Your task to perform on an android device: search for starred emails in the gmail app Image 0: 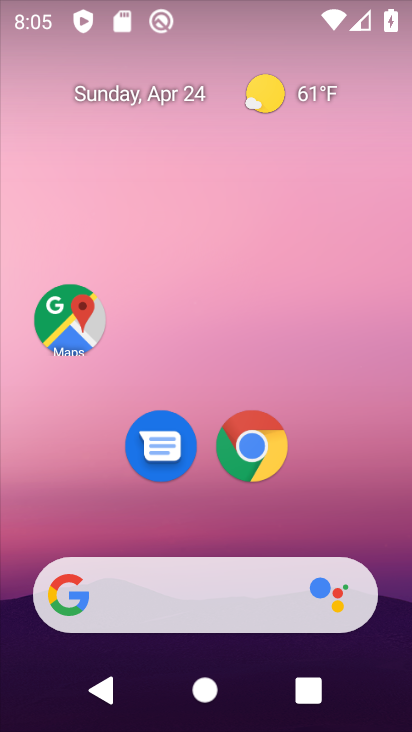
Step 0: drag from (167, 554) to (217, 54)
Your task to perform on an android device: search for starred emails in the gmail app Image 1: 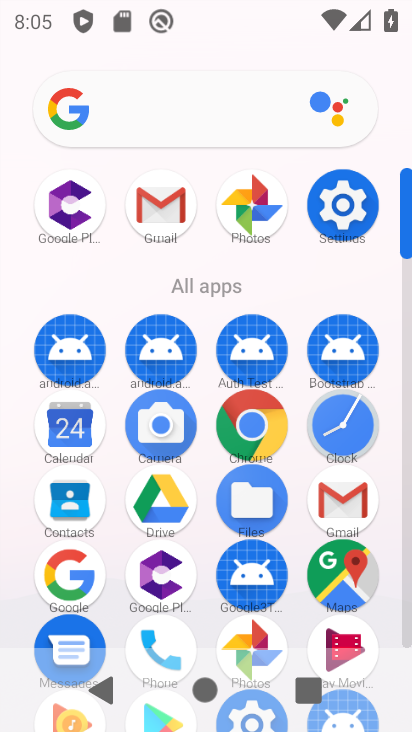
Step 1: click (346, 511)
Your task to perform on an android device: search for starred emails in the gmail app Image 2: 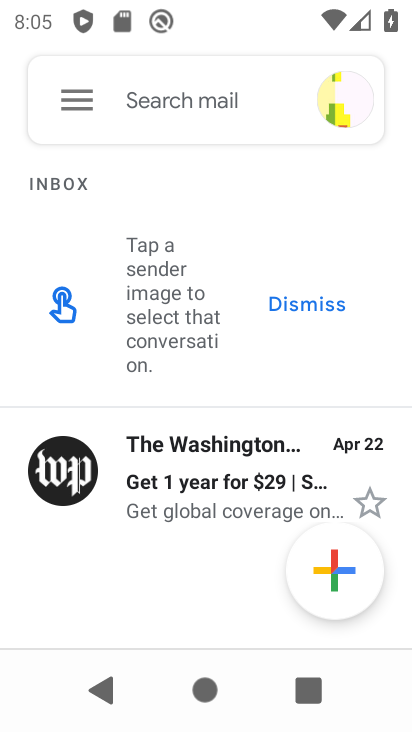
Step 2: click (82, 98)
Your task to perform on an android device: search for starred emails in the gmail app Image 3: 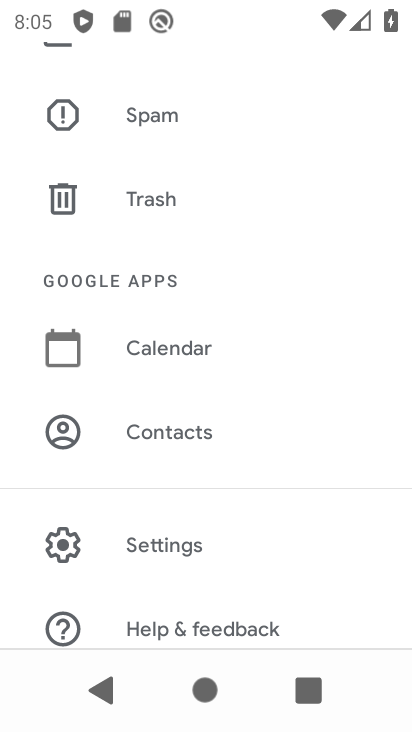
Step 3: drag from (114, 336) to (157, 713)
Your task to perform on an android device: search for starred emails in the gmail app Image 4: 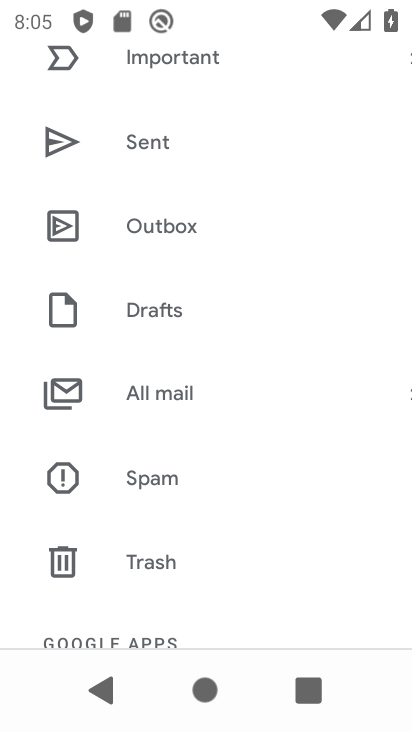
Step 4: drag from (147, 284) to (106, 705)
Your task to perform on an android device: search for starred emails in the gmail app Image 5: 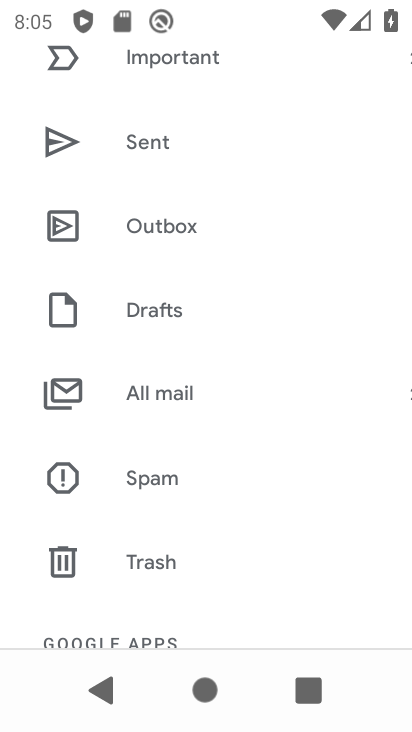
Step 5: drag from (193, 468) to (193, 571)
Your task to perform on an android device: search for starred emails in the gmail app Image 6: 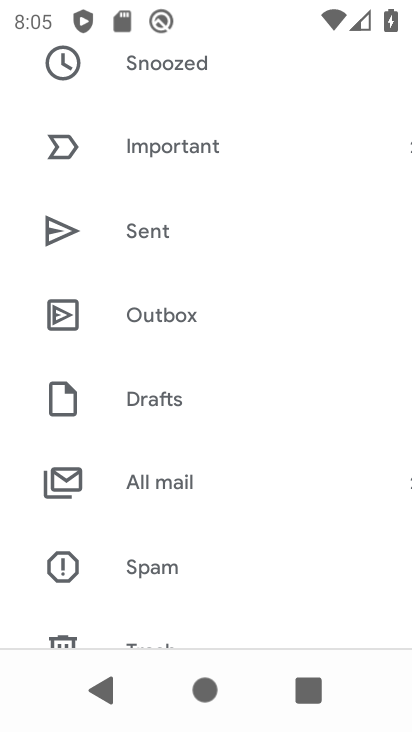
Step 6: drag from (227, 180) to (215, 636)
Your task to perform on an android device: search for starred emails in the gmail app Image 7: 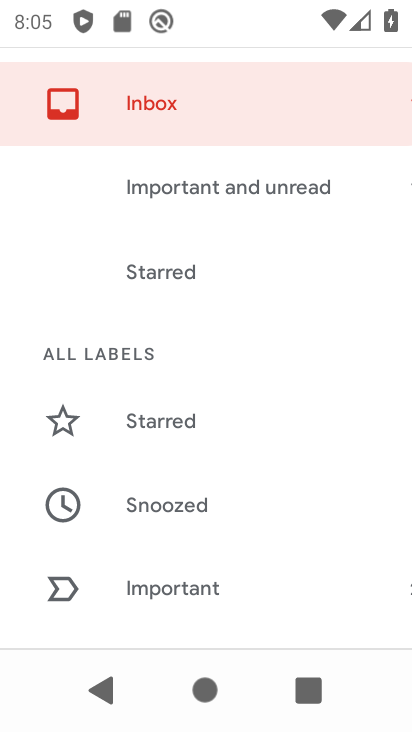
Step 7: click (197, 413)
Your task to perform on an android device: search for starred emails in the gmail app Image 8: 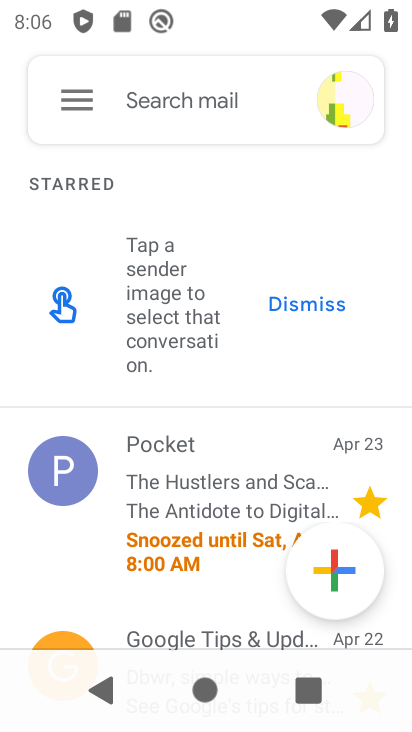
Step 8: task complete